Your task to perform on an android device: turn off data saver in the chrome app Image 0: 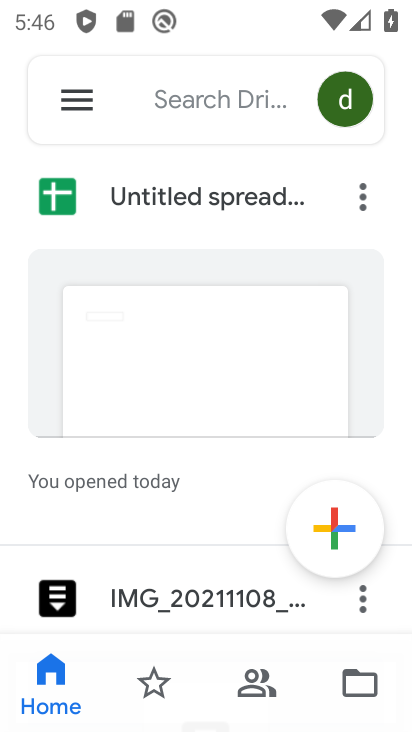
Step 0: press home button
Your task to perform on an android device: turn off data saver in the chrome app Image 1: 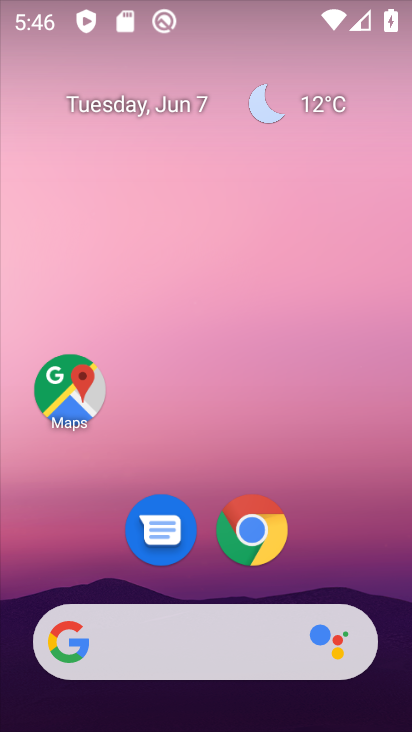
Step 1: drag from (291, 592) to (288, 304)
Your task to perform on an android device: turn off data saver in the chrome app Image 2: 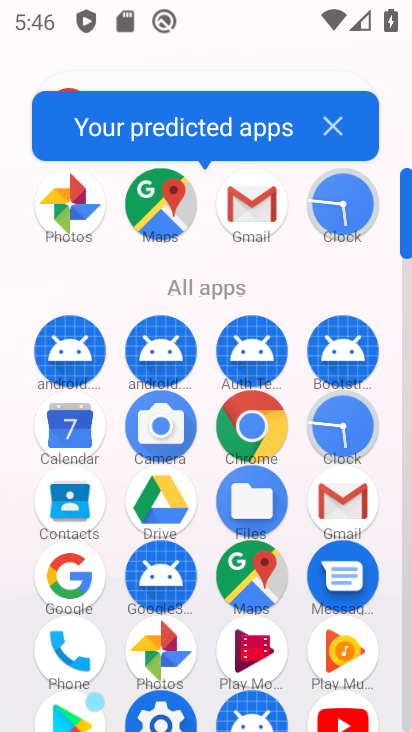
Step 2: click (257, 440)
Your task to perform on an android device: turn off data saver in the chrome app Image 3: 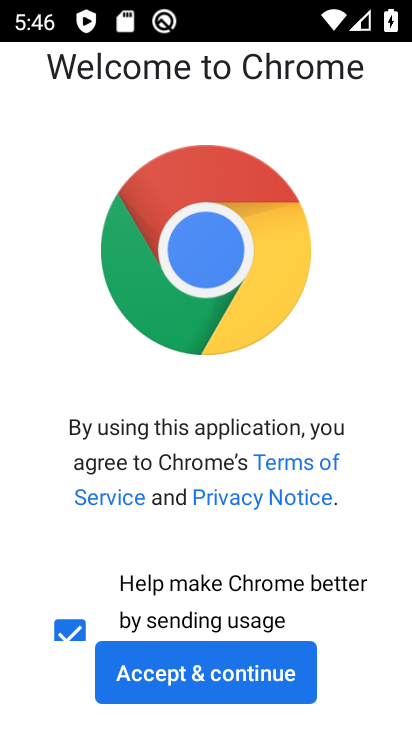
Step 3: click (201, 667)
Your task to perform on an android device: turn off data saver in the chrome app Image 4: 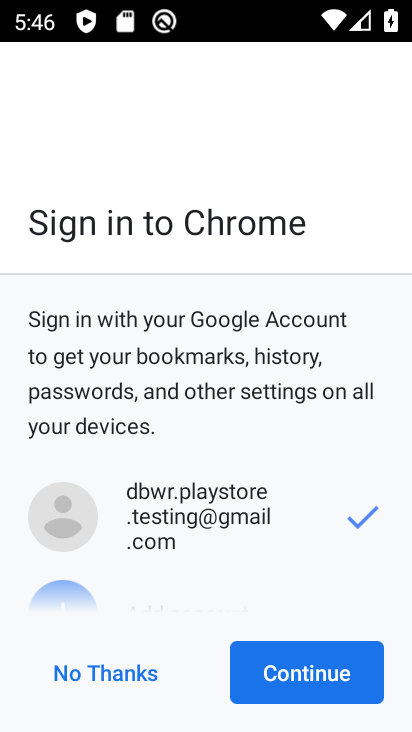
Step 4: click (260, 681)
Your task to perform on an android device: turn off data saver in the chrome app Image 5: 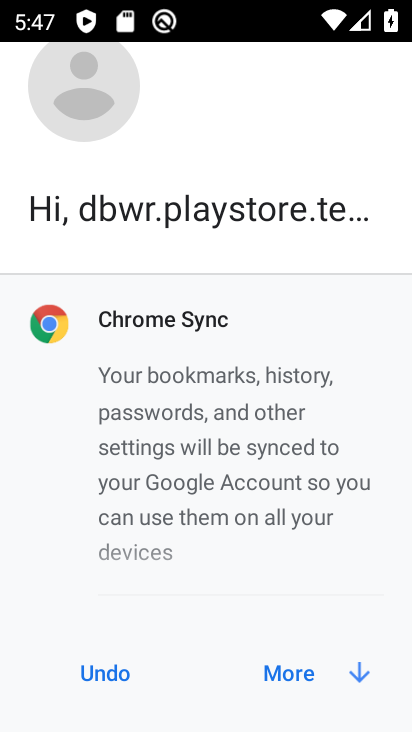
Step 5: click (295, 681)
Your task to perform on an android device: turn off data saver in the chrome app Image 6: 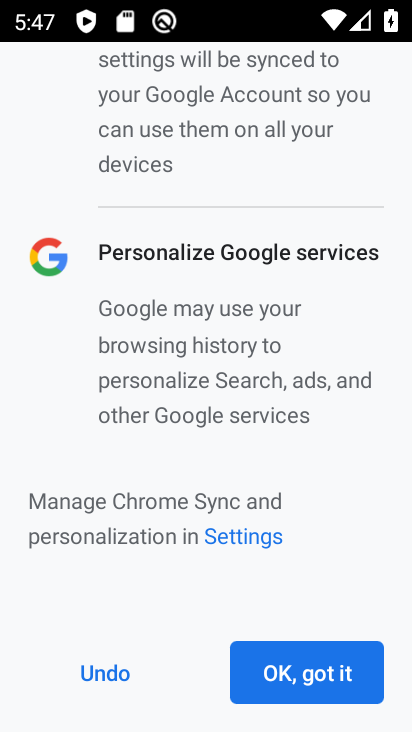
Step 6: click (287, 676)
Your task to perform on an android device: turn off data saver in the chrome app Image 7: 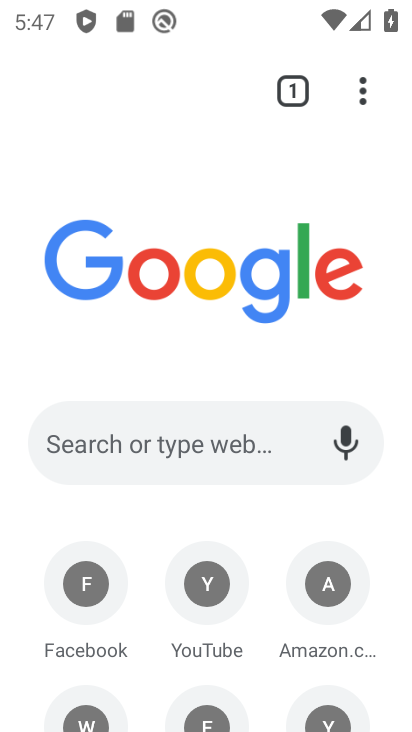
Step 7: click (361, 95)
Your task to perform on an android device: turn off data saver in the chrome app Image 8: 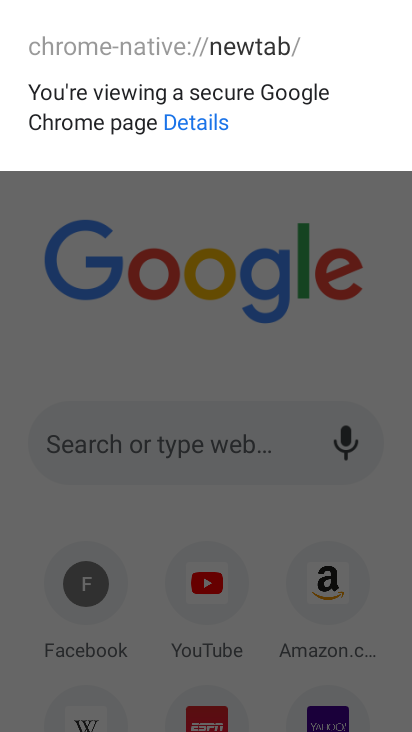
Step 8: click (302, 212)
Your task to perform on an android device: turn off data saver in the chrome app Image 9: 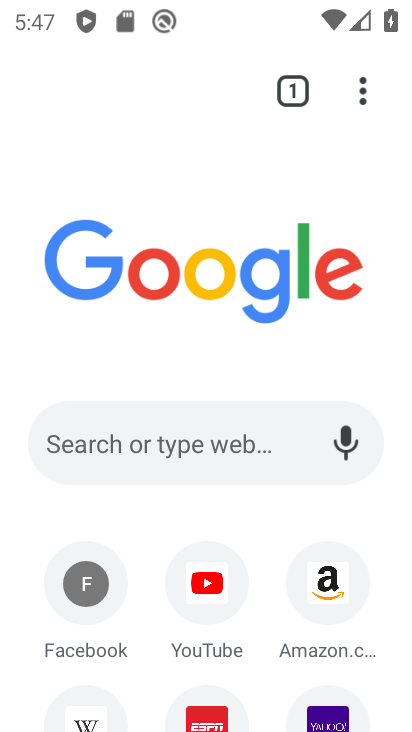
Step 9: click (356, 100)
Your task to perform on an android device: turn off data saver in the chrome app Image 10: 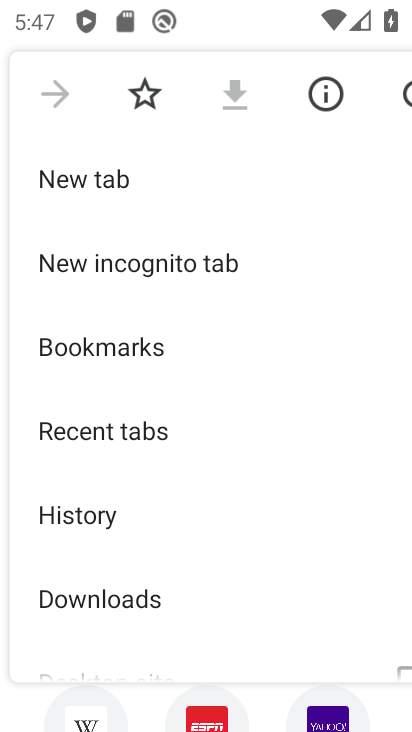
Step 10: drag from (148, 569) to (119, 338)
Your task to perform on an android device: turn off data saver in the chrome app Image 11: 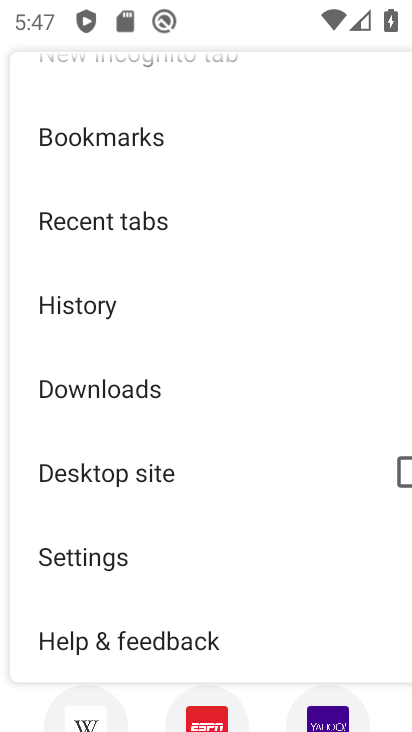
Step 11: click (121, 565)
Your task to perform on an android device: turn off data saver in the chrome app Image 12: 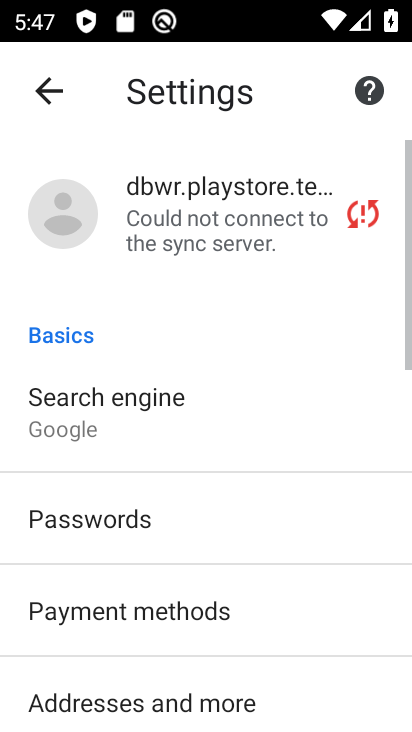
Step 12: drag from (177, 621) to (220, 254)
Your task to perform on an android device: turn off data saver in the chrome app Image 13: 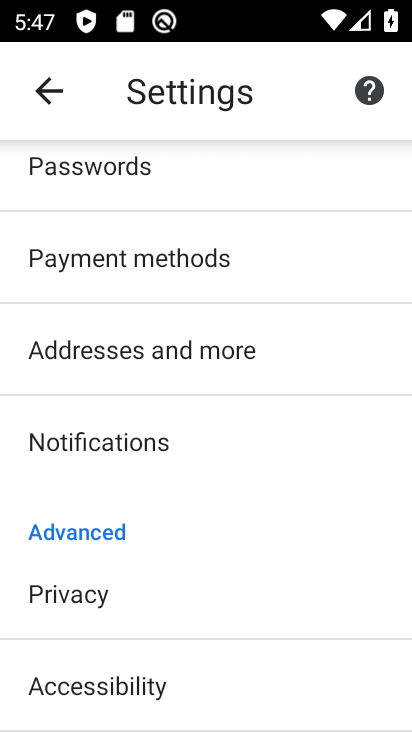
Step 13: drag from (164, 573) to (164, 186)
Your task to perform on an android device: turn off data saver in the chrome app Image 14: 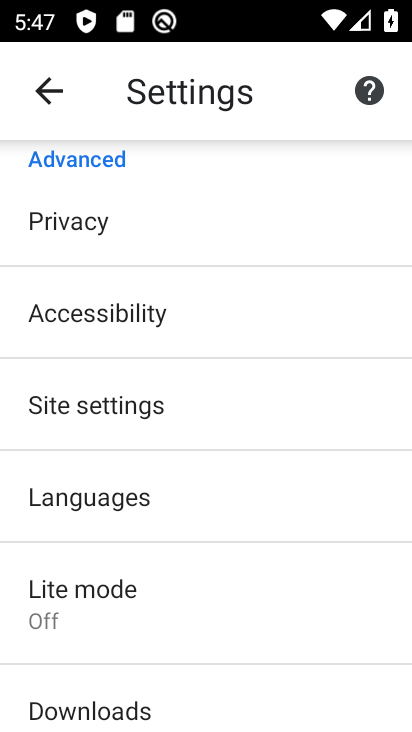
Step 14: click (119, 411)
Your task to perform on an android device: turn off data saver in the chrome app Image 15: 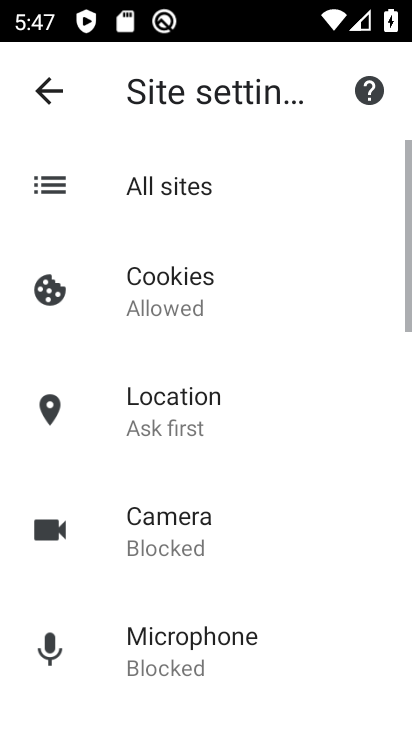
Step 15: press back button
Your task to perform on an android device: turn off data saver in the chrome app Image 16: 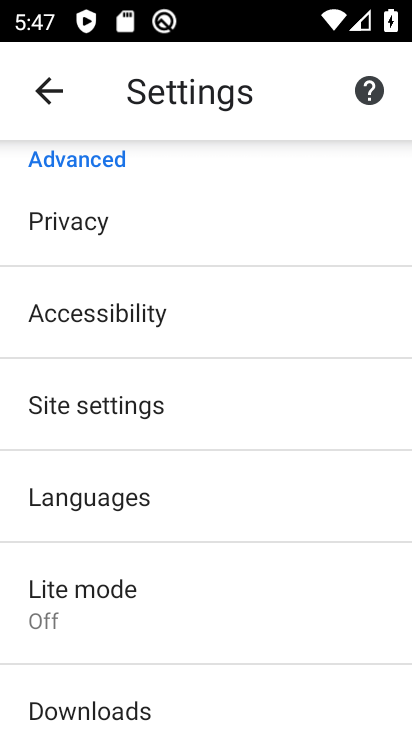
Step 16: click (128, 620)
Your task to perform on an android device: turn off data saver in the chrome app Image 17: 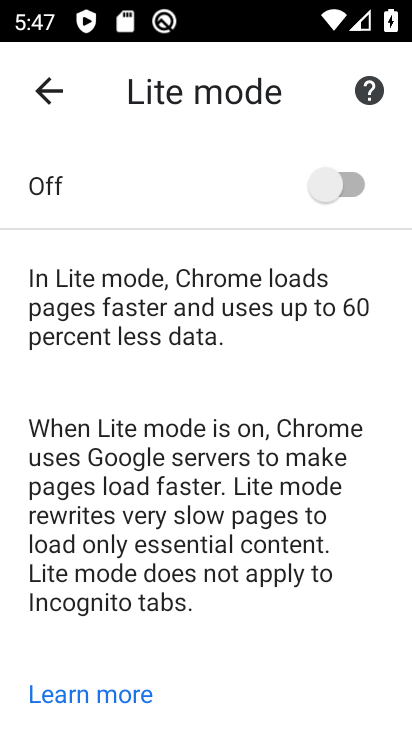
Step 17: task complete